Your task to perform on an android device: open a new tab in the chrome app Image 0: 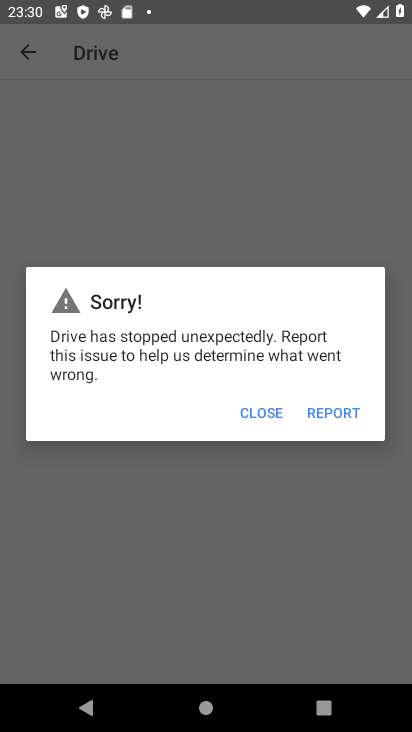
Step 0: click (280, 411)
Your task to perform on an android device: open a new tab in the chrome app Image 1: 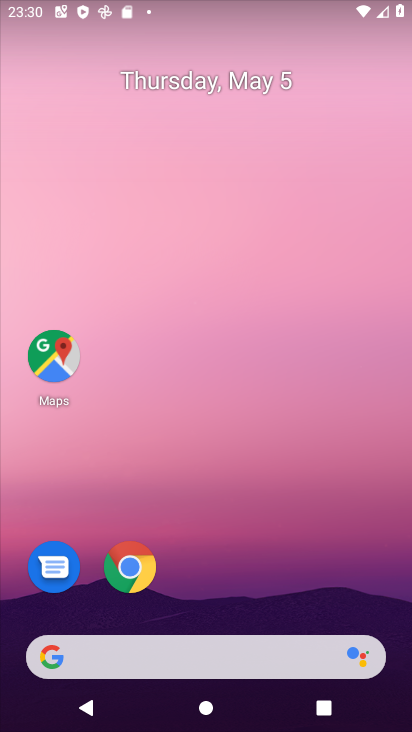
Step 1: click (130, 557)
Your task to perform on an android device: open a new tab in the chrome app Image 2: 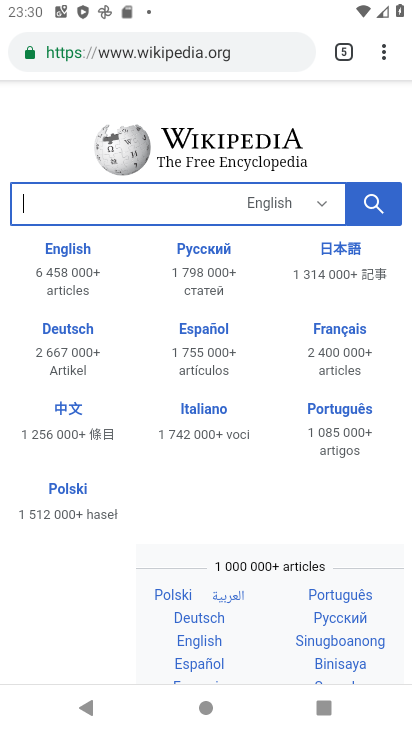
Step 2: click (339, 53)
Your task to perform on an android device: open a new tab in the chrome app Image 3: 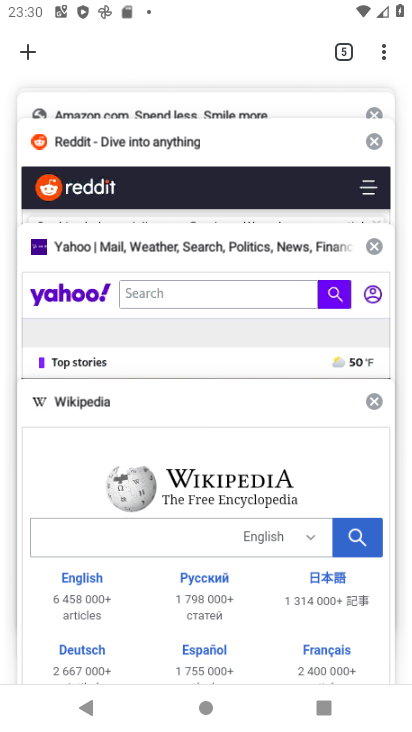
Step 3: click (15, 52)
Your task to perform on an android device: open a new tab in the chrome app Image 4: 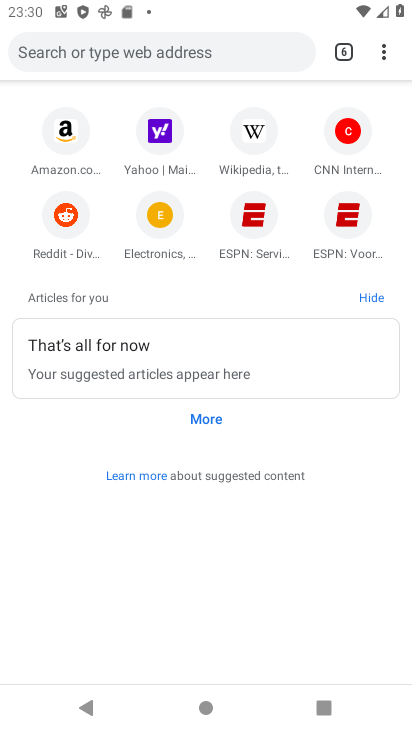
Step 4: task complete